Your task to perform on an android device: Open the calendar and show me this week's events? Image 0: 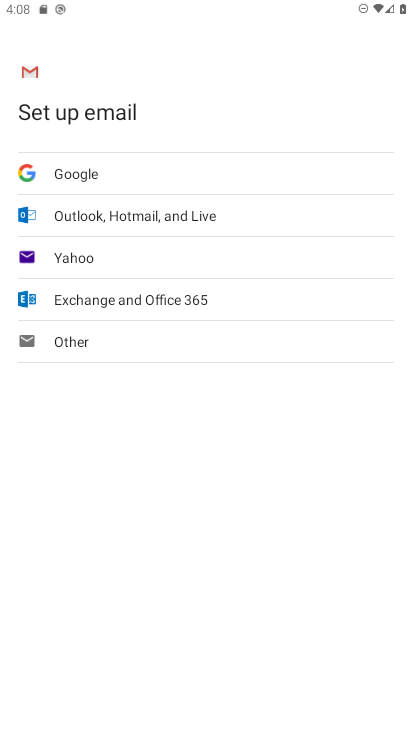
Step 0: press home button
Your task to perform on an android device: Open the calendar and show me this week's events? Image 1: 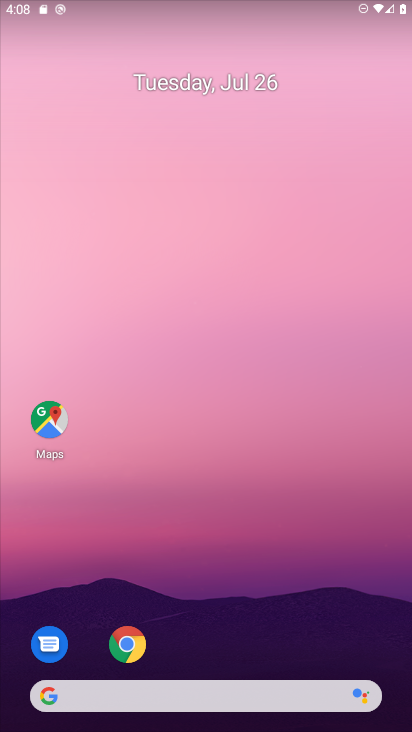
Step 1: drag from (375, 654) to (364, 254)
Your task to perform on an android device: Open the calendar and show me this week's events? Image 2: 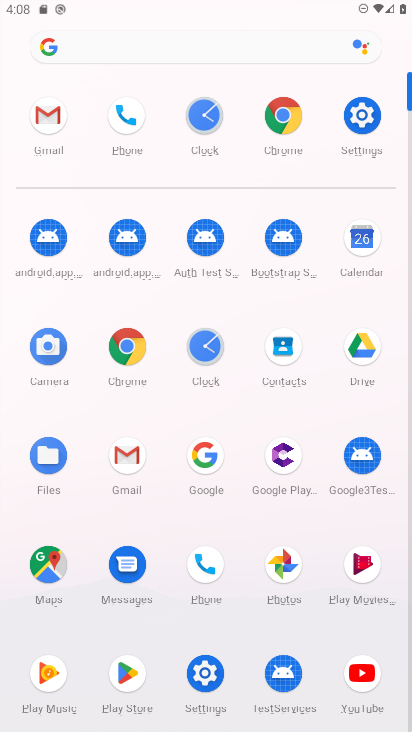
Step 2: click (360, 238)
Your task to perform on an android device: Open the calendar and show me this week's events? Image 3: 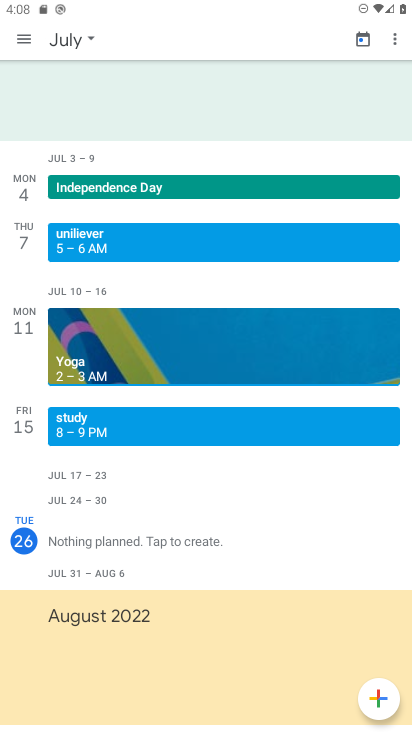
Step 3: click (21, 38)
Your task to perform on an android device: Open the calendar and show me this week's events? Image 4: 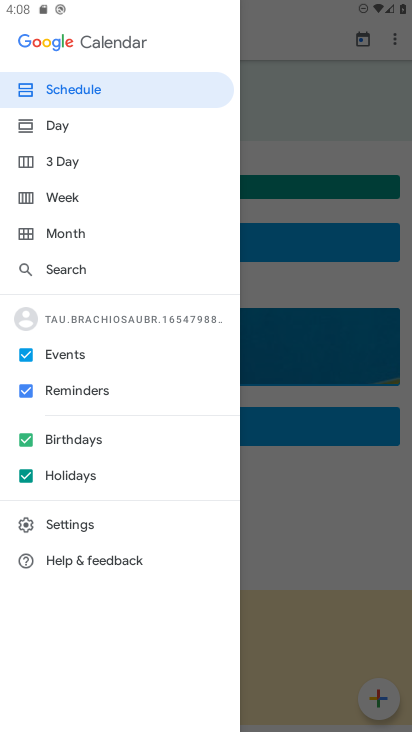
Step 4: click (66, 196)
Your task to perform on an android device: Open the calendar and show me this week's events? Image 5: 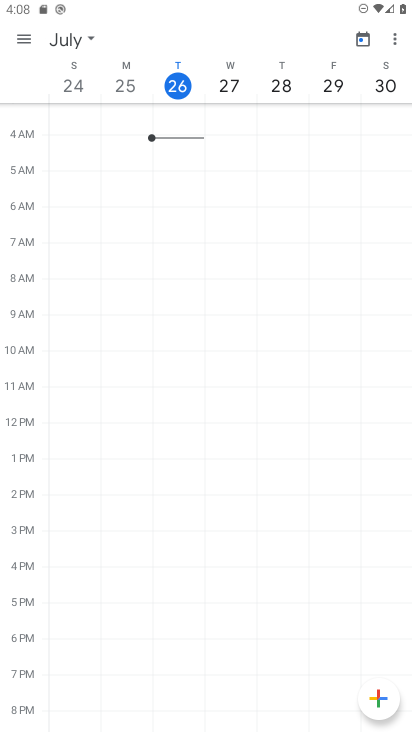
Step 5: click (88, 37)
Your task to perform on an android device: Open the calendar and show me this week's events? Image 6: 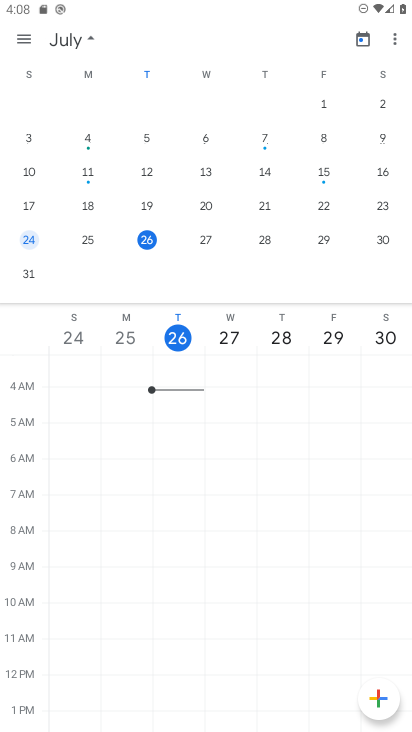
Step 6: click (24, 274)
Your task to perform on an android device: Open the calendar and show me this week's events? Image 7: 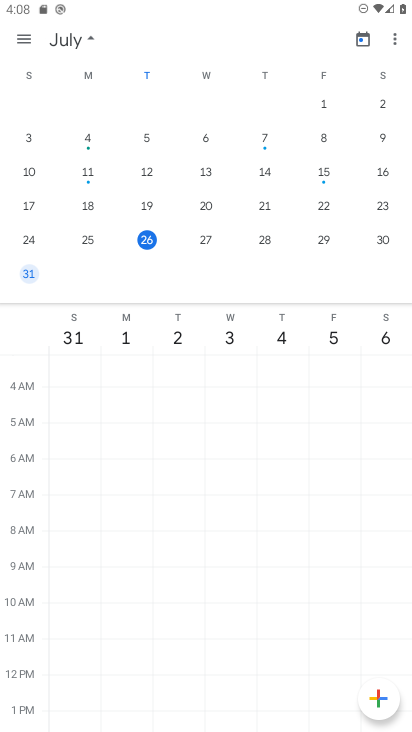
Step 7: drag from (170, 478) to (209, 191)
Your task to perform on an android device: Open the calendar and show me this week's events? Image 8: 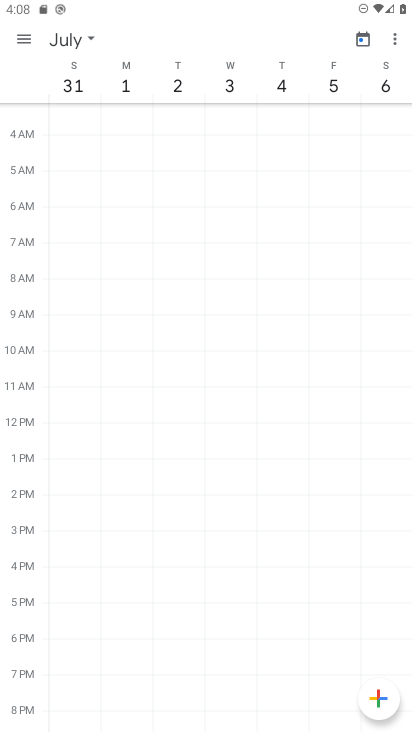
Step 8: click (209, 191)
Your task to perform on an android device: Open the calendar and show me this week's events? Image 9: 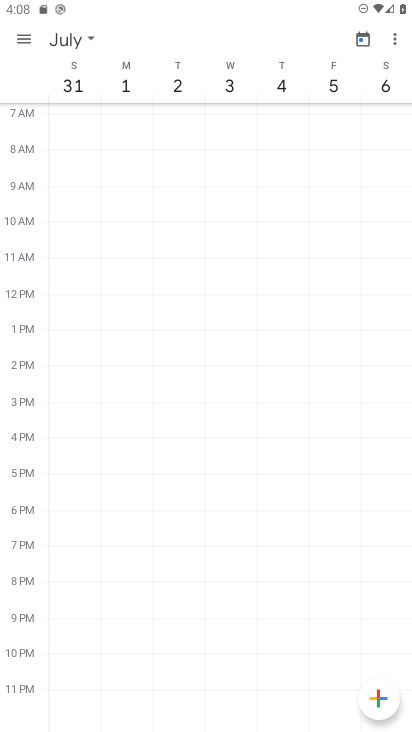
Step 9: task complete